Your task to perform on an android device: Open calendar and show me the second week of next month Image 0: 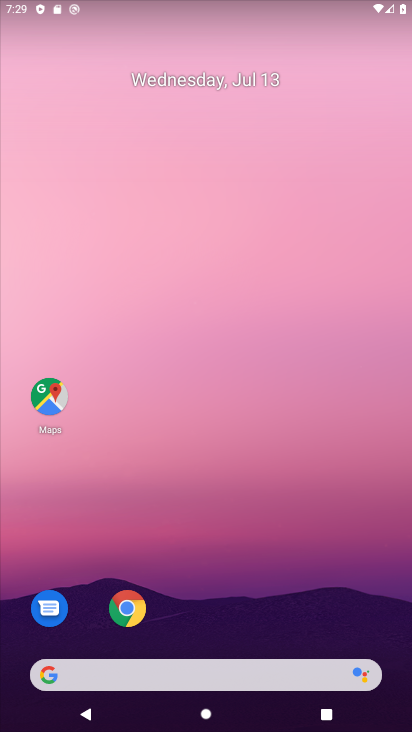
Step 0: drag from (269, 558) to (232, 206)
Your task to perform on an android device: Open calendar and show me the second week of next month Image 1: 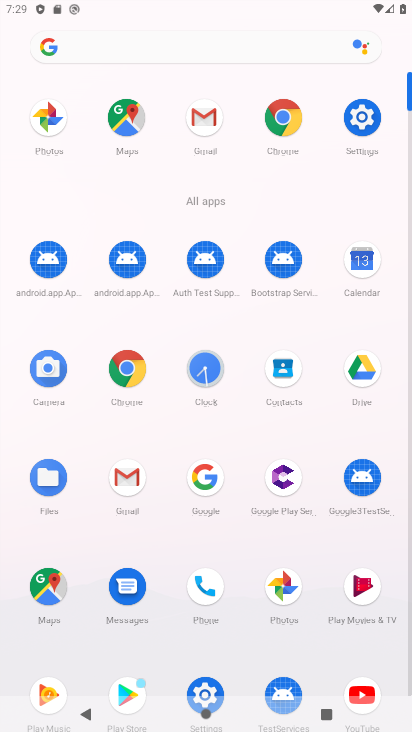
Step 1: click (362, 268)
Your task to perform on an android device: Open calendar and show me the second week of next month Image 2: 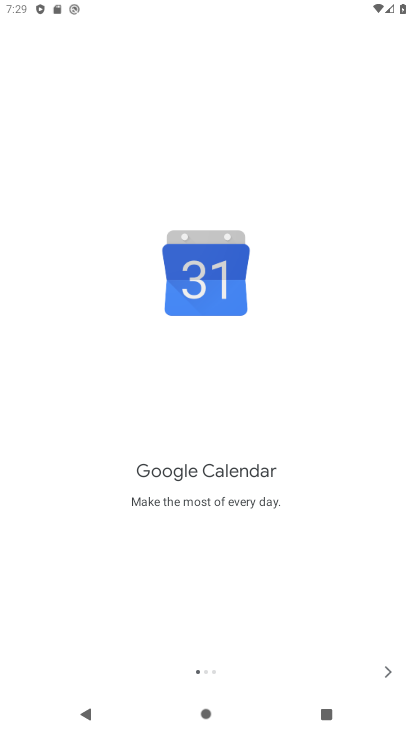
Step 2: click (389, 672)
Your task to perform on an android device: Open calendar and show me the second week of next month Image 3: 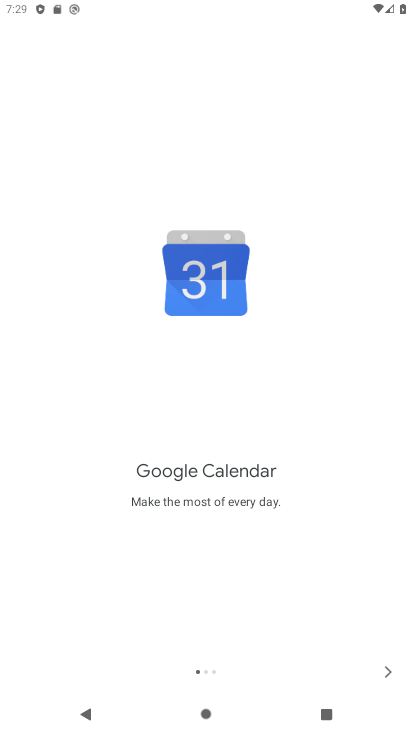
Step 3: click (389, 672)
Your task to perform on an android device: Open calendar and show me the second week of next month Image 4: 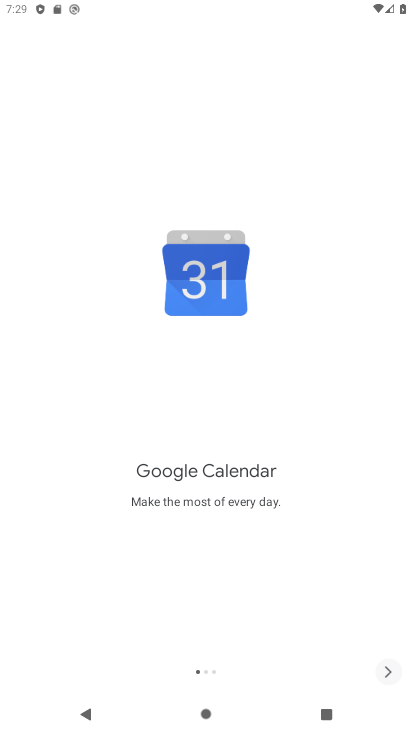
Step 4: click (389, 672)
Your task to perform on an android device: Open calendar and show me the second week of next month Image 5: 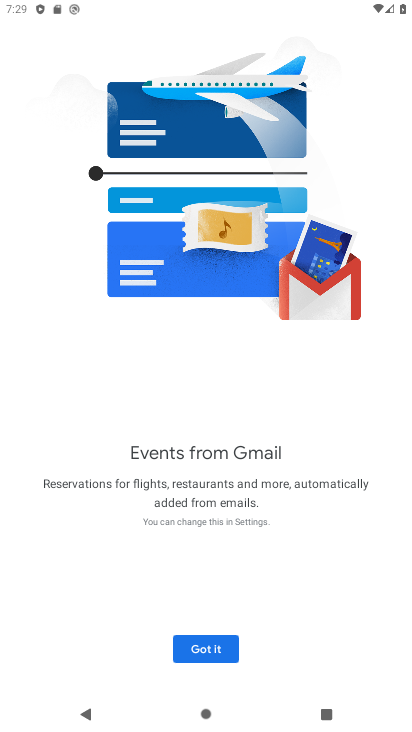
Step 5: click (216, 647)
Your task to perform on an android device: Open calendar and show me the second week of next month Image 6: 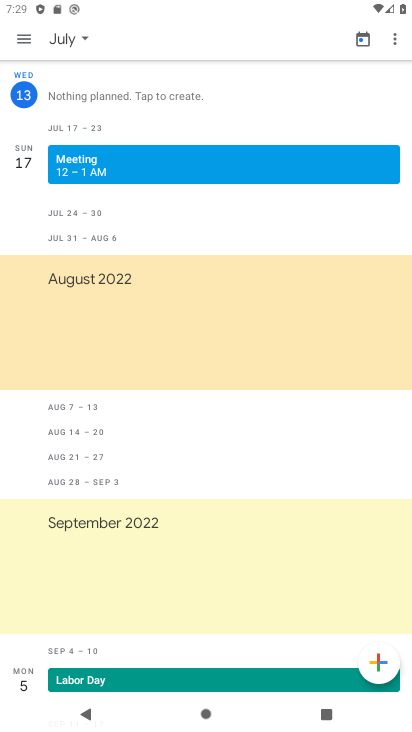
Step 6: click (25, 40)
Your task to perform on an android device: Open calendar and show me the second week of next month Image 7: 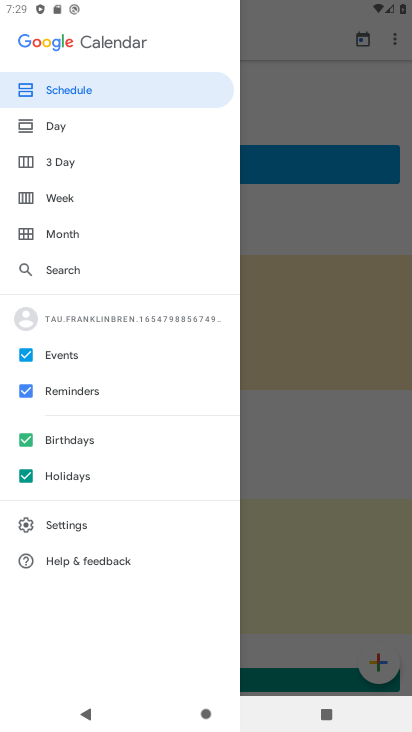
Step 7: click (61, 198)
Your task to perform on an android device: Open calendar and show me the second week of next month Image 8: 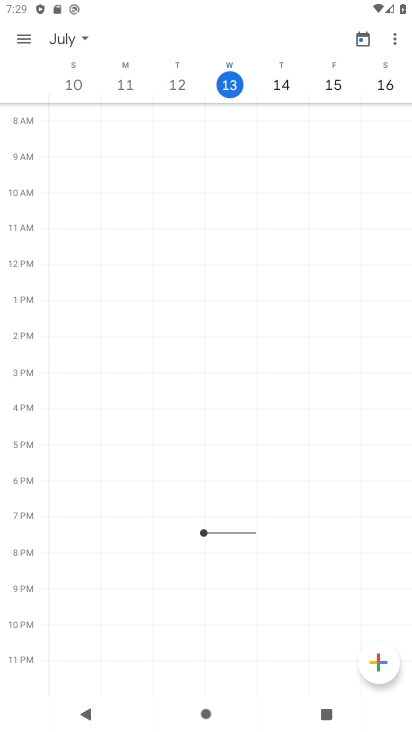
Step 8: click (80, 39)
Your task to perform on an android device: Open calendar and show me the second week of next month Image 9: 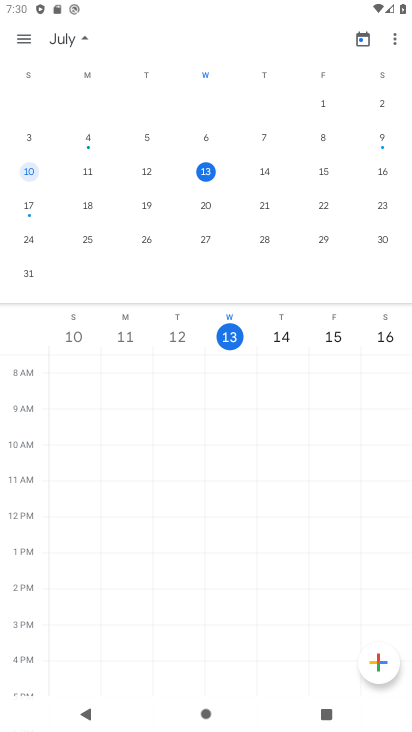
Step 9: drag from (380, 170) to (24, 117)
Your task to perform on an android device: Open calendar and show me the second week of next month Image 10: 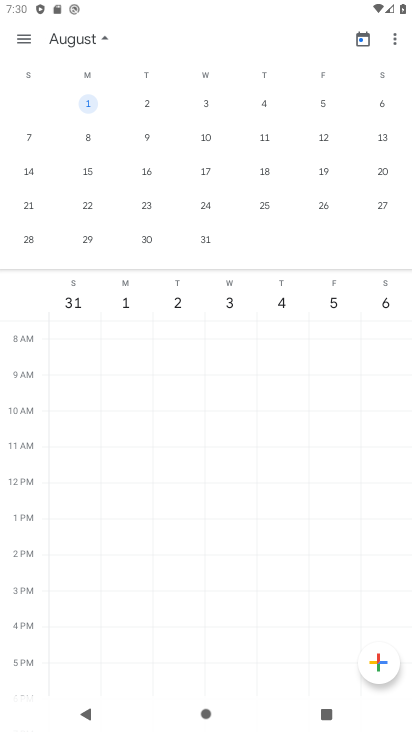
Step 10: click (89, 131)
Your task to perform on an android device: Open calendar and show me the second week of next month Image 11: 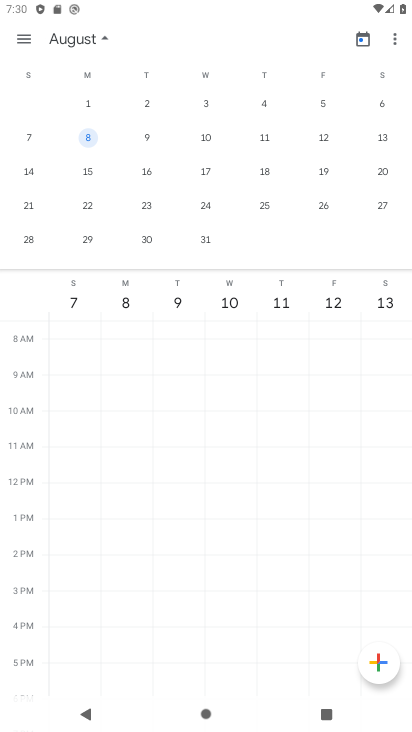
Step 11: task complete